Your task to perform on an android device: Search for flights from Helsinki to Tokyo Image 0: 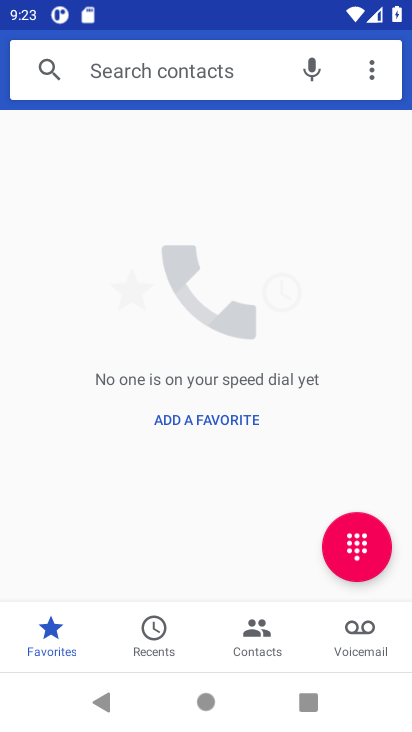
Step 0: press home button
Your task to perform on an android device: Search for flights from Helsinki to Tokyo Image 1: 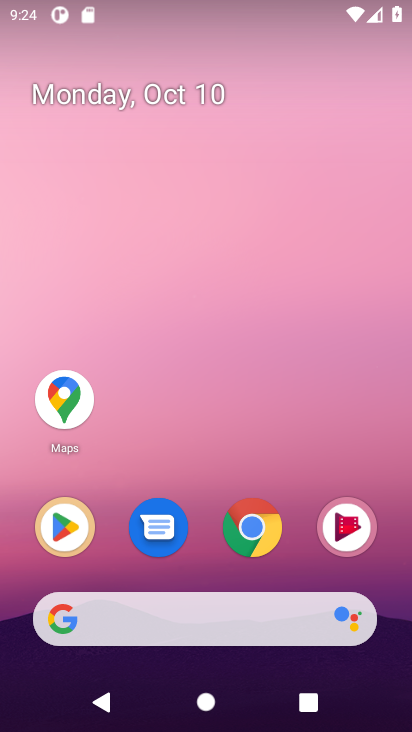
Step 1: click (259, 537)
Your task to perform on an android device: Search for flights from Helsinki to Tokyo Image 2: 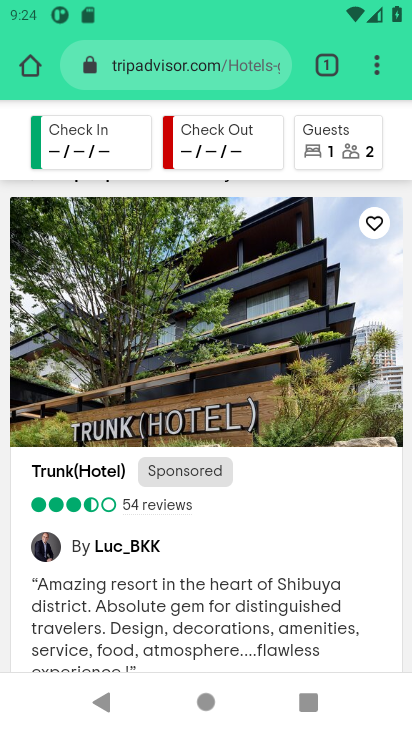
Step 2: click (131, 61)
Your task to perform on an android device: Search for flights from Helsinki to Tokyo Image 3: 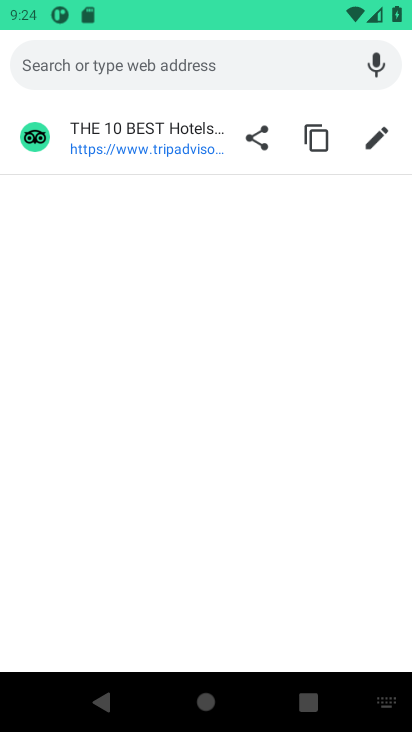
Step 3: type "flights from Helsinki to Tokyo"
Your task to perform on an android device: Search for flights from Helsinki to Tokyo Image 4: 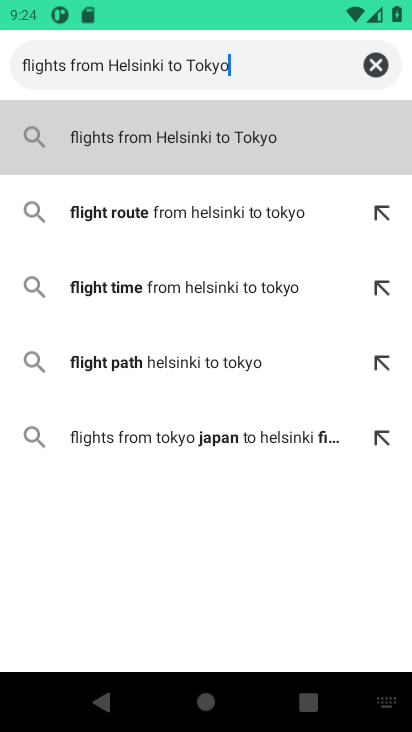
Step 4: type ""
Your task to perform on an android device: Search for flights from Helsinki to Tokyo Image 5: 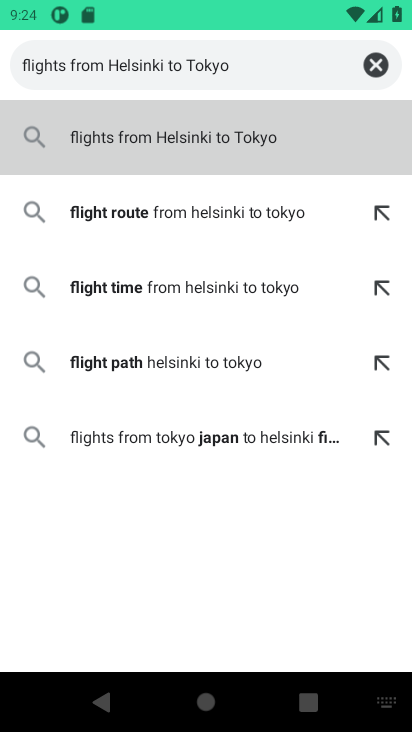
Step 5: press enter
Your task to perform on an android device: Search for flights from Helsinki to Tokyo Image 6: 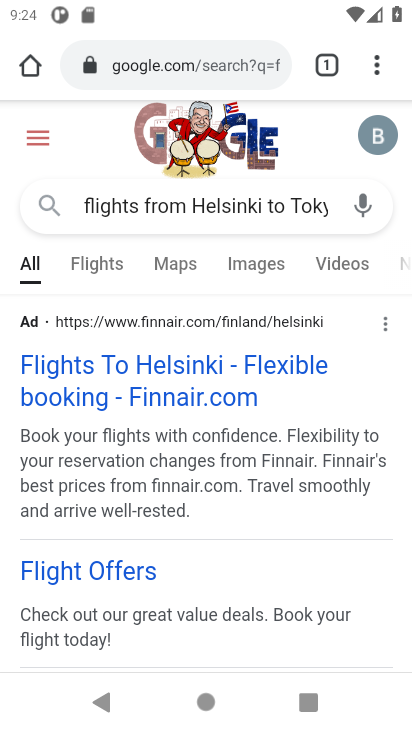
Step 6: drag from (253, 561) to (193, 28)
Your task to perform on an android device: Search for flights from Helsinki to Tokyo Image 7: 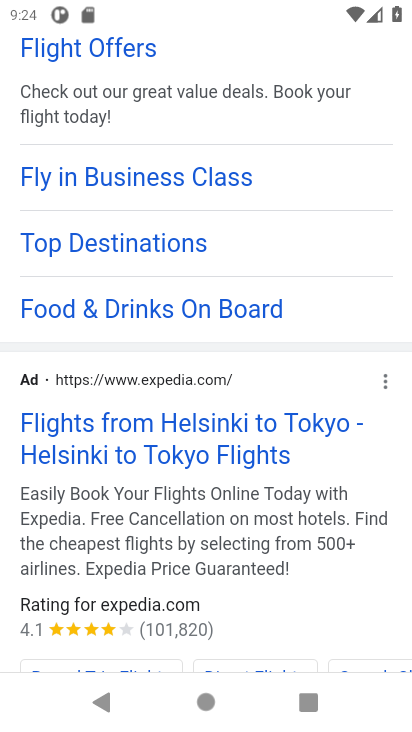
Step 7: click (208, 451)
Your task to perform on an android device: Search for flights from Helsinki to Tokyo Image 8: 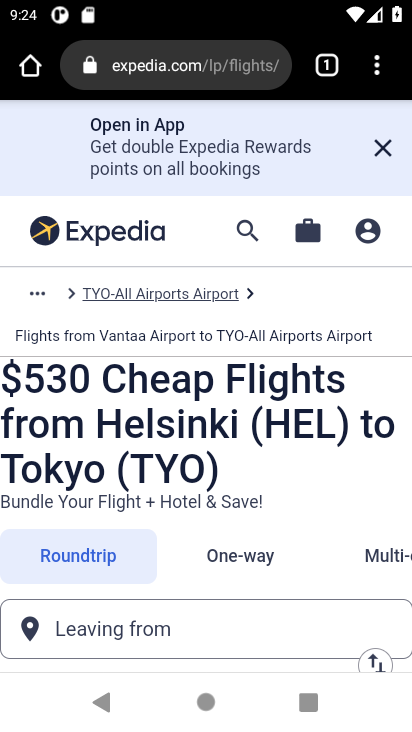
Step 8: drag from (240, 561) to (186, 173)
Your task to perform on an android device: Search for flights from Helsinki to Tokyo Image 9: 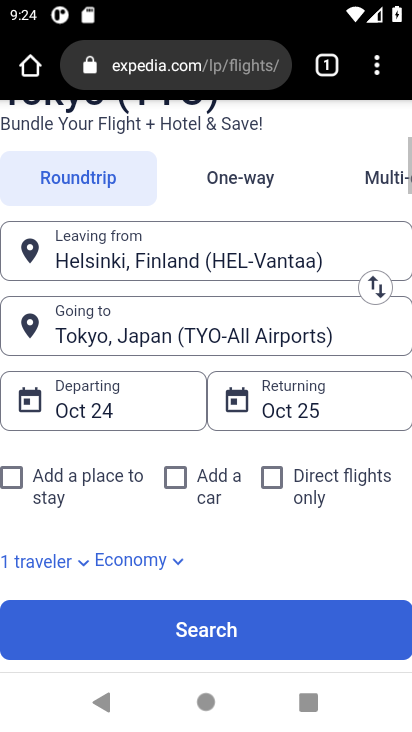
Step 9: drag from (282, 576) to (232, 161)
Your task to perform on an android device: Search for flights from Helsinki to Tokyo Image 10: 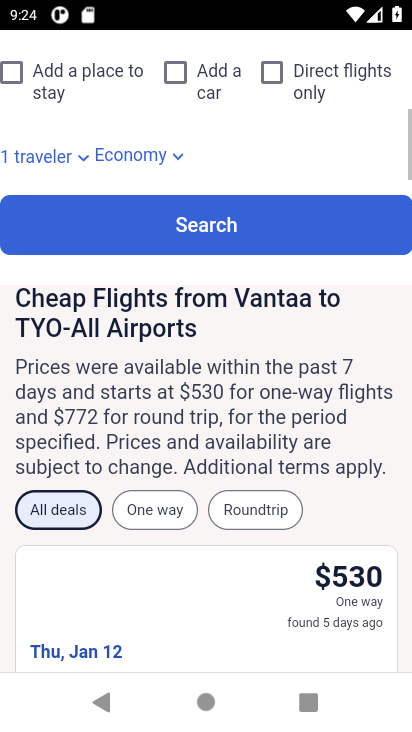
Step 10: drag from (259, 608) to (212, 23)
Your task to perform on an android device: Search for flights from Helsinki to Tokyo Image 11: 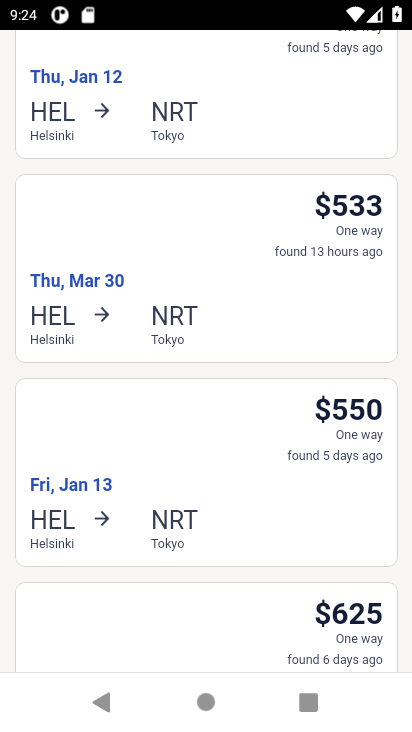
Step 11: drag from (238, 623) to (176, 204)
Your task to perform on an android device: Search for flights from Helsinki to Tokyo Image 12: 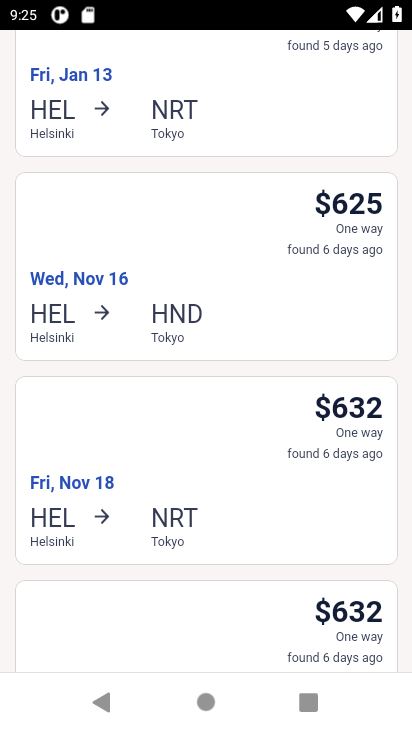
Step 12: drag from (251, 615) to (213, 206)
Your task to perform on an android device: Search for flights from Helsinki to Tokyo Image 13: 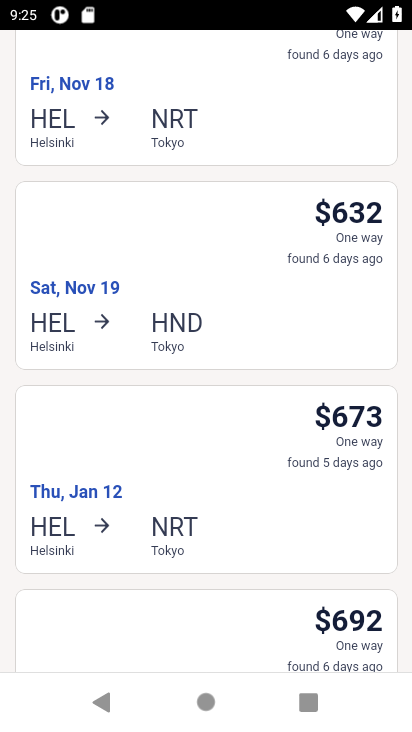
Step 13: drag from (336, 591) to (254, 185)
Your task to perform on an android device: Search for flights from Helsinki to Tokyo Image 14: 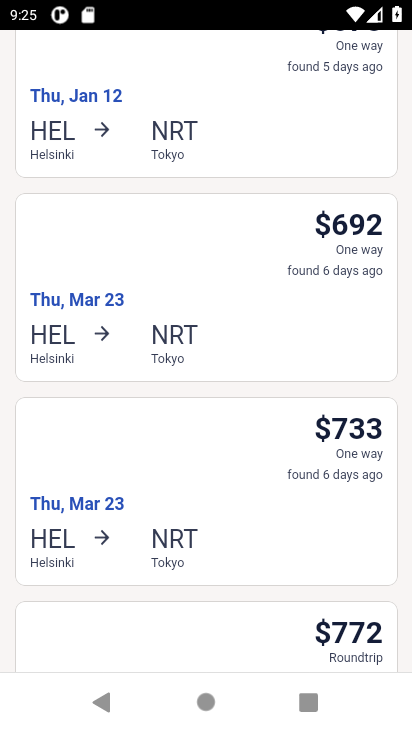
Step 14: drag from (351, 646) to (315, 208)
Your task to perform on an android device: Search for flights from Helsinki to Tokyo Image 15: 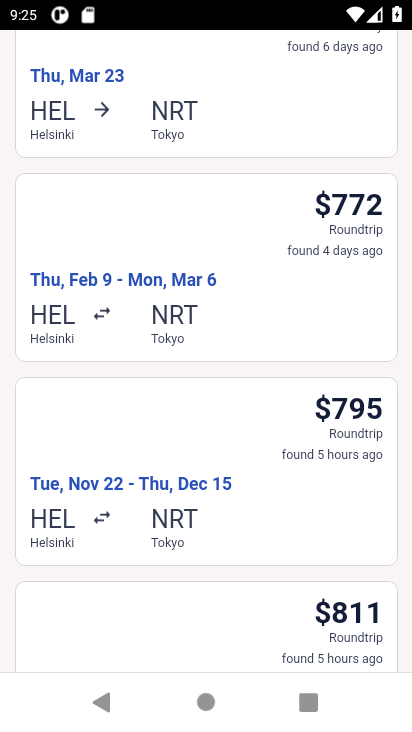
Step 15: drag from (325, 576) to (333, 210)
Your task to perform on an android device: Search for flights from Helsinki to Tokyo Image 16: 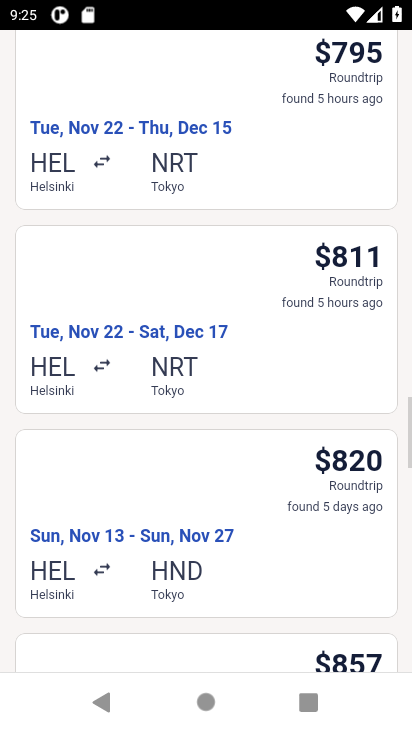
Step 16: drag from (327, 440) to (314, 126)
Your task to perform on an android device: Search for flights from Helsinki to Tokyo Image 17: 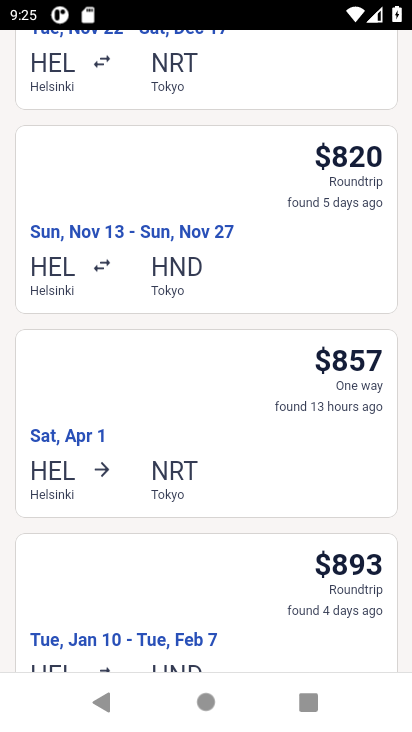
Step 17: drag from (311, 458) to (270, 93)
Your task to perform on an android device: Search for flights from Helsinki to Tokyo Image 18: 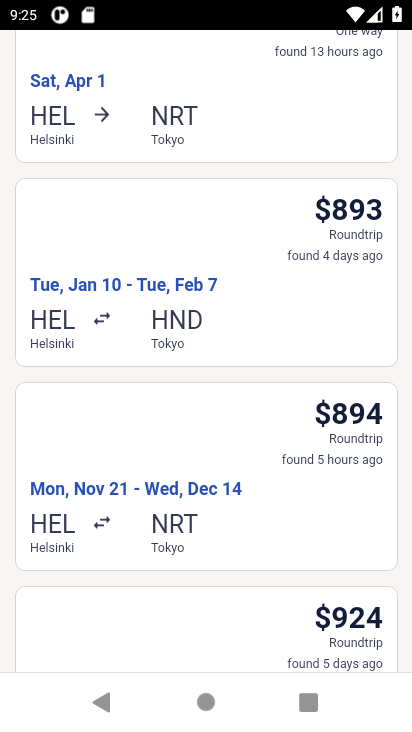
Step 18: drag from (260, 516) to (247, 166)
Your task to perform on an android device: Search for flights from Helsinki to Tokyo Image 19: 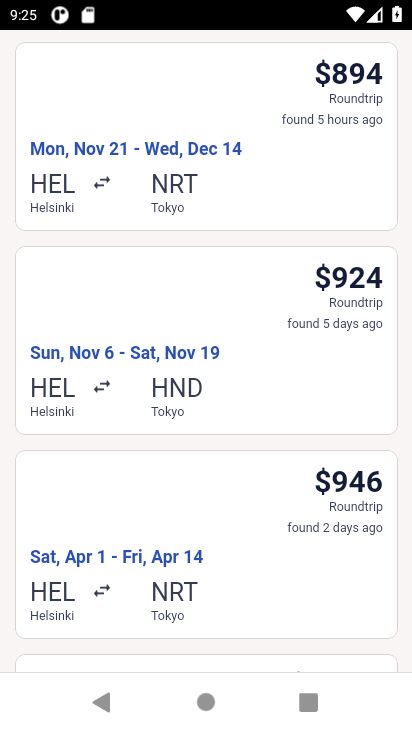
Step 19: drag from (244, 530) to (271, 233)
Your task to perform on an android device: Search for flights from Helsinki to Tokyo Image 20: 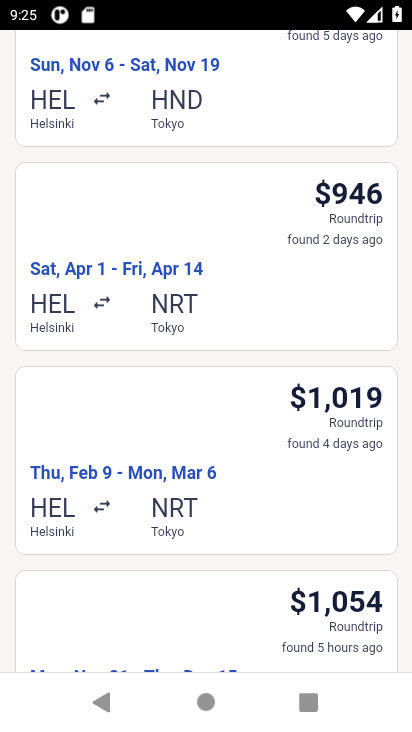
Step 20: drag from (292, 498) to (305, 184)
Your task to perform on an android device: Search for flights from Helsinki to Tokyo Image 21: 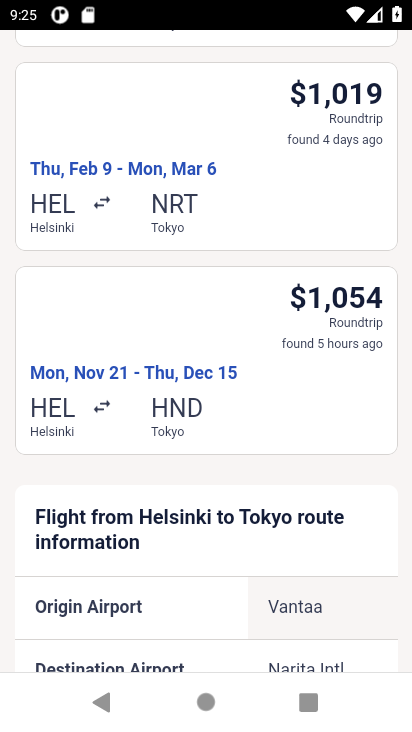
Step 21: drag from (258, 560) to (244, 235)
Your task to perform on an android device: Search for flights from Helsinki to Tokyo Image 22: 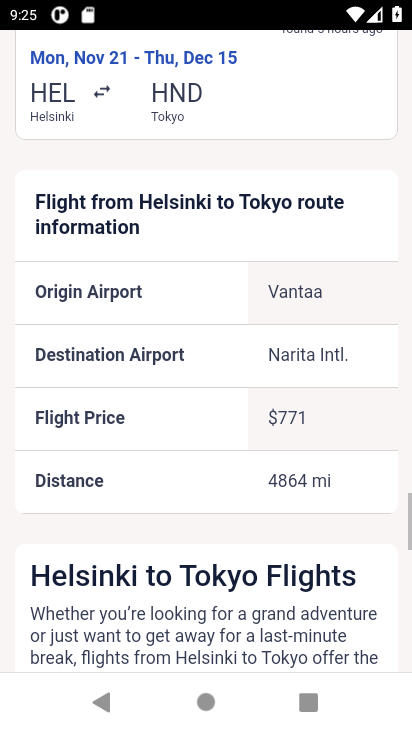
Step 22: drag from (284, 519) to (247, 241)
Your task to perform on an android device: Search for flights from Helsinki to Tokyo Image 23: 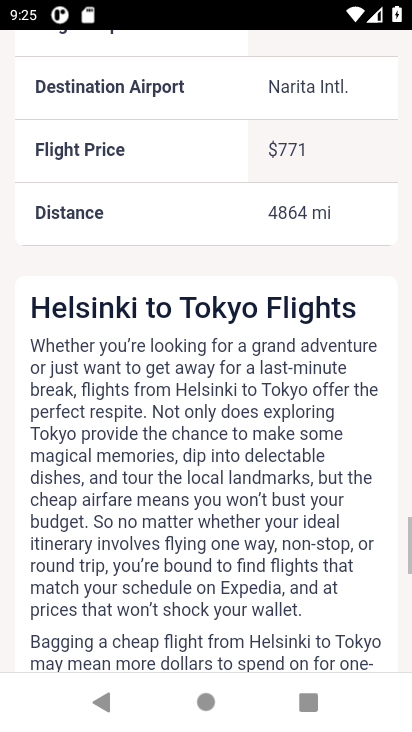
Step 23: drag from (233, 496) to (196, 235)
Your task to perform on an android device: Search for flights from Helsinki to Tokyo Image 24: 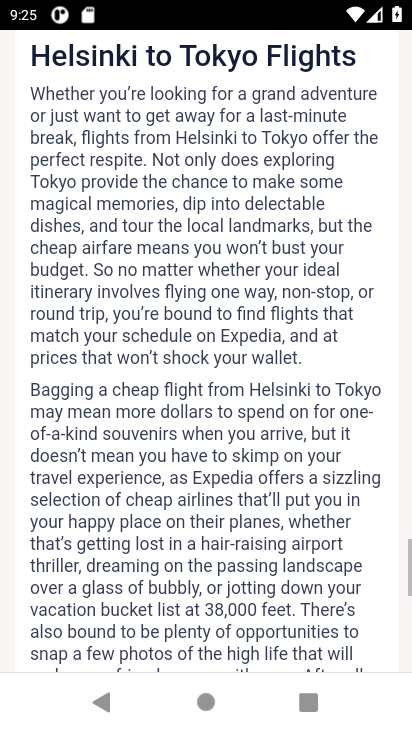
Step 24: drag from (190, 480) to (171, 257)
Your task to perform on an android device: Search for flights from Helsinki to Tokyo Image 25: 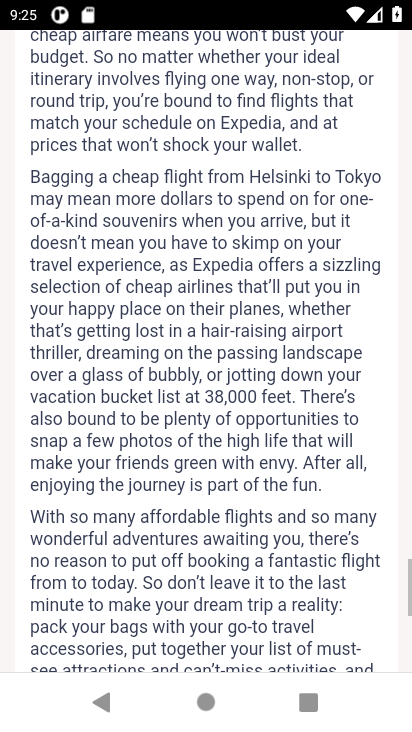
Step 25: drag from (158, 488) to (161, 231)
Your task to perform on an android device: Search for flights from Helsinki to Tokyo Image 26: 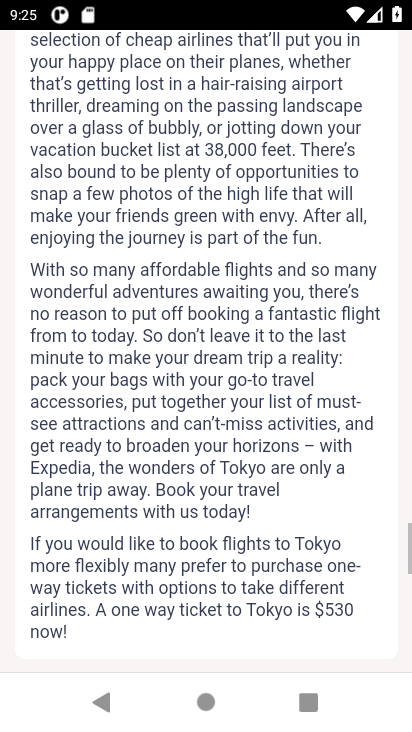
Step 26: drag from (196, 429) to (223, 185)
Your task to perform on an android device: Search for flights from Helsinki to Tokyo Image 27: 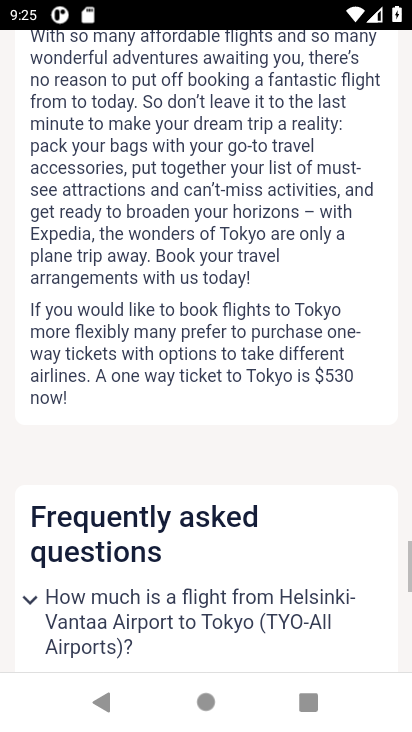
Step 27: drag from (263, 430) to (252, 197)
Your task to perform on an android device: Search for flights from Helsinki to Tokyo Image 28: 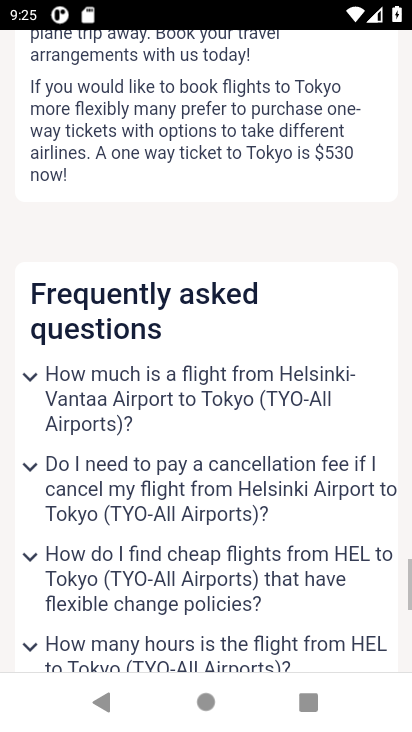
Step 28: drag from (224, 493) to (214, 198)
Your task to perform on an android device: Search for flights from Helsinki to Tokyo Image 29: 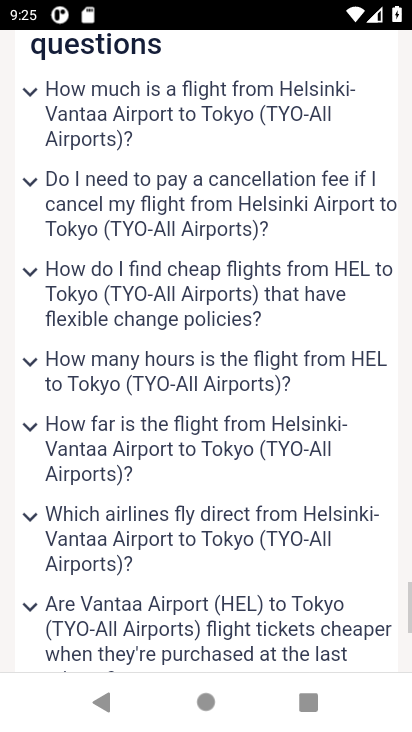
Step 29: drag from (213, 526) to (226, 249)
Your task to perform on an android device: Search for flights from Helsinki to Tokyo Image 30: 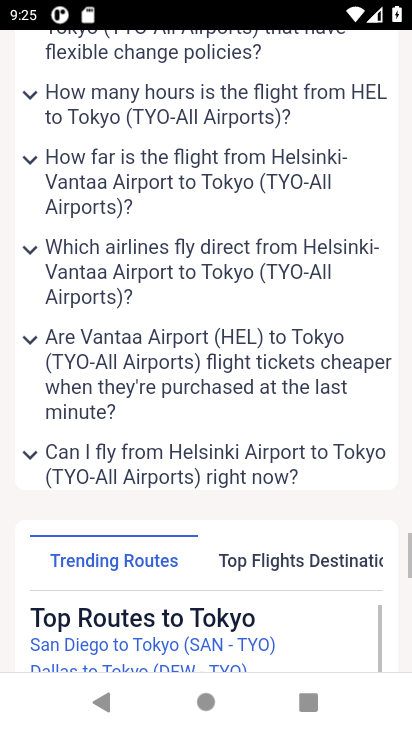
Step 30: drag from (200, 544) to (209, 349)
Your task to perform on an android device: Search for flights from Helsinki to Tokyo Image 31: 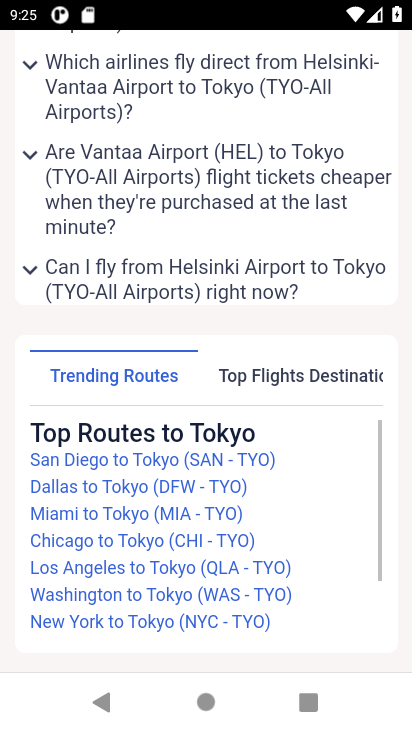
Step 31: click (257, 379)
Your task to perform on an android device: Search for flights from Helsinki to Tokyo Image 32: 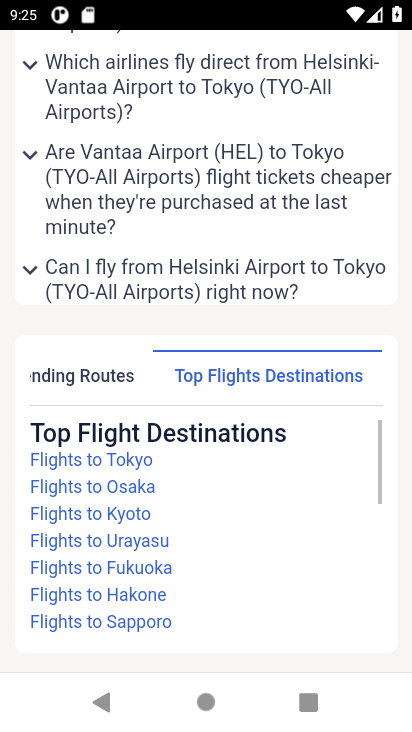
Step 32: drag from (247, 361) to (221, 83)
Your task to perform on an android device: Search for flights from Helsinki to Tokyo Image 33: 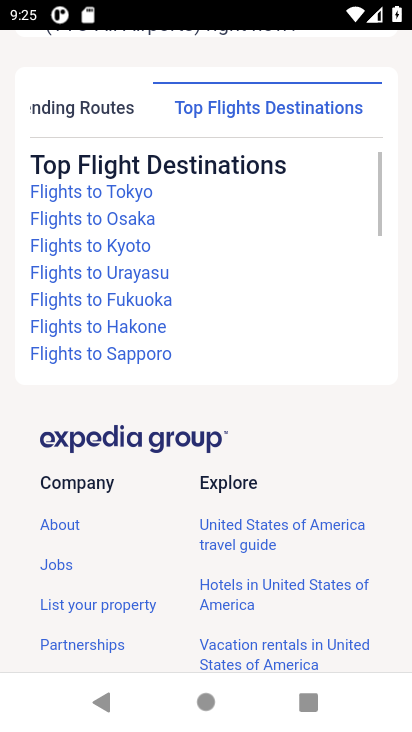
Step 33: drag from (286, 578) to (230, 175)
Your task to perform on an android device: Search for flights from Helsinki to Tokyo Image 34: 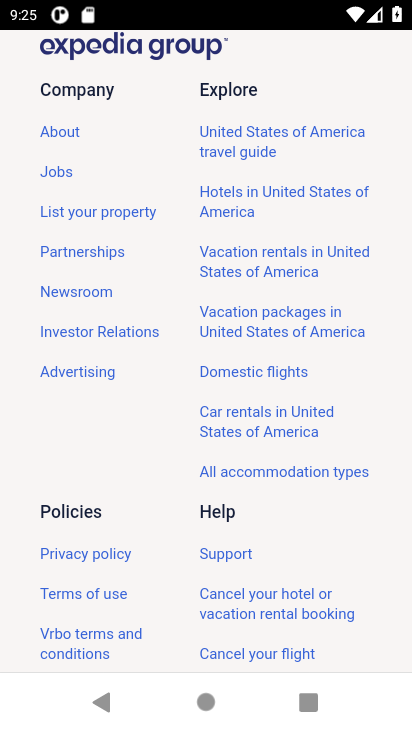
Step 34: drag from (237, 580) to (209, 173)
Your task to perform on an android device: Search for flights from Helsinki to Tokyo Image 35: 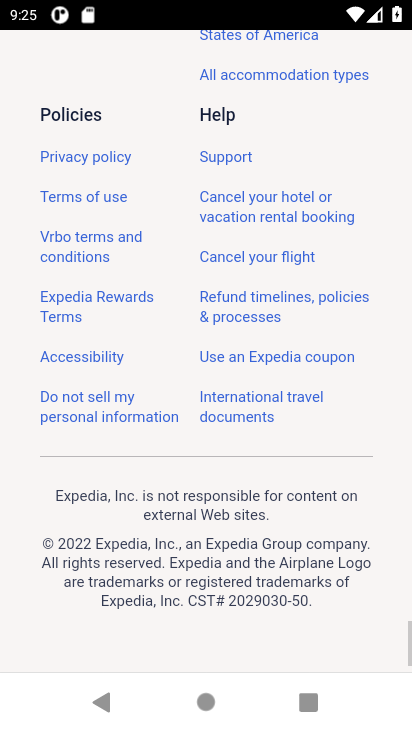
Step 35: drag from (262, 658) to (202, 203)
Your task to perform on an android device: Search for flights from Helsinki to Tokyo Image 36: 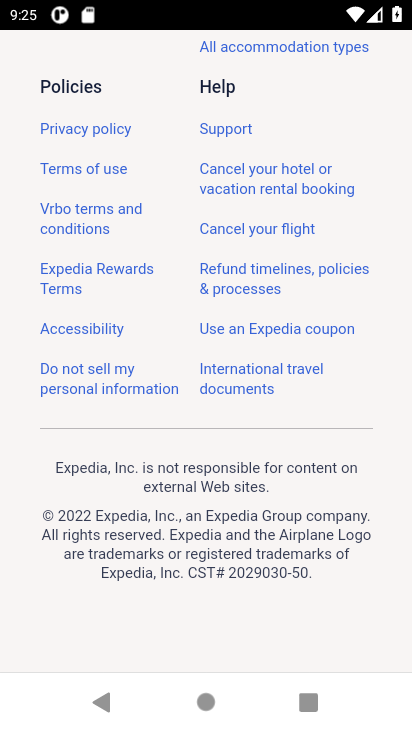
Step 36: press back button
Your task to perform on an android device: Search for flights from Helsinki to Tokyo Image 37: 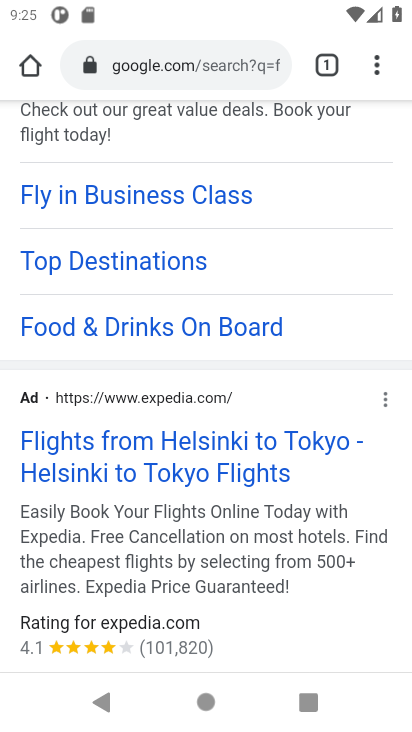
Step 37: drag from (300, 604) to (286, 113)
Your task to perform on an android device: Search for flights from Helsinki to Tokyo Image 38: 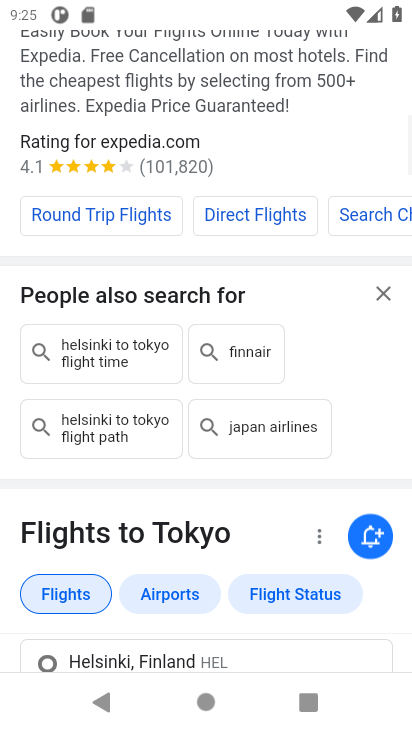
Step 38: drag from (338, 581) to (322, 133)
Your task to perform on an android device: Search for flights from Helsinki to Tokyo Image 39: 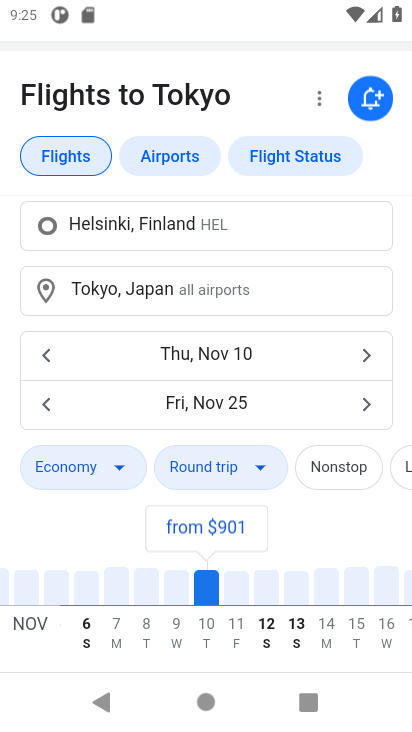
Step 39: drag from (336, 539) to (314, 132)
Your task to perform on an android device: Search for flights from Helsinki to Tokyo Image 40: 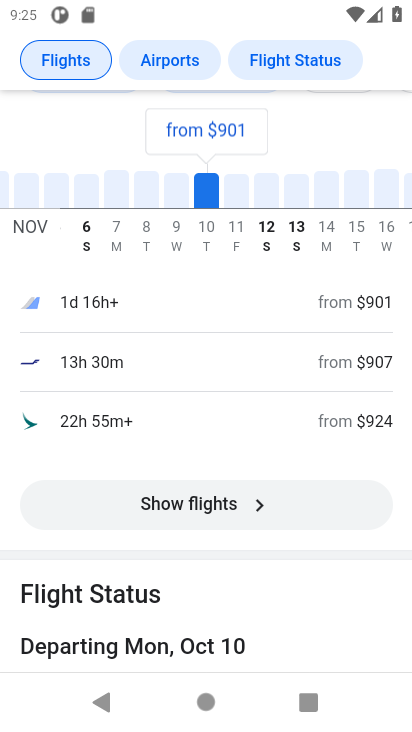
Step 40: click (212, 501)
Your task to perform on an android device: Search for flights from Helsinki to Tokyo Image 41: 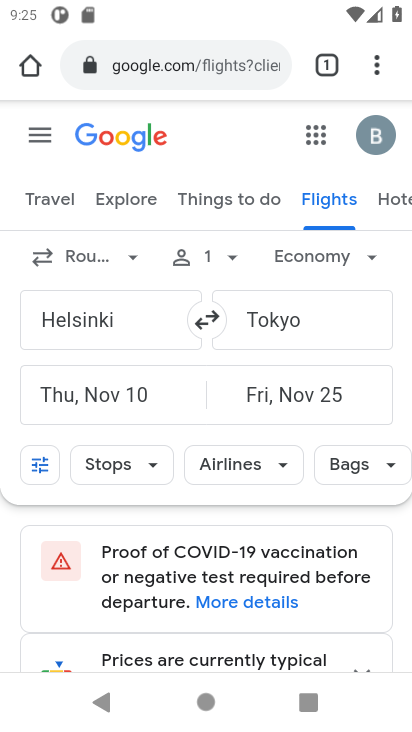
Step 41: drag from (283, 594) to (249, 132)
Your task to perform on an android device: Search for flights from Helsinki to Tokyo Image 42: 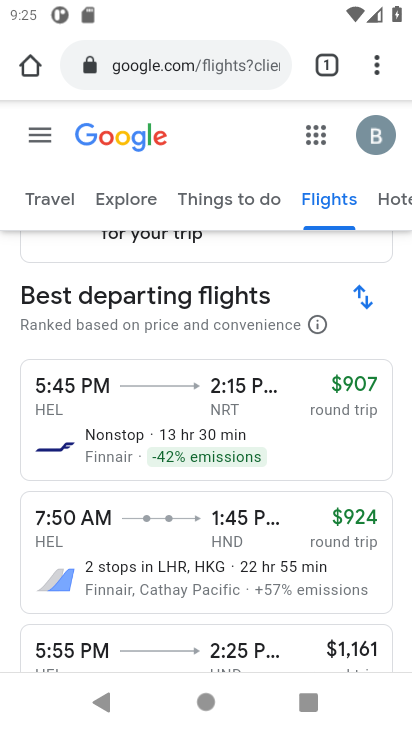
Step 42: drag from (272, 566) to (250, 309)
Your task to perform on an android device: Search for flights from Helsinki to Tokyo Image 43: 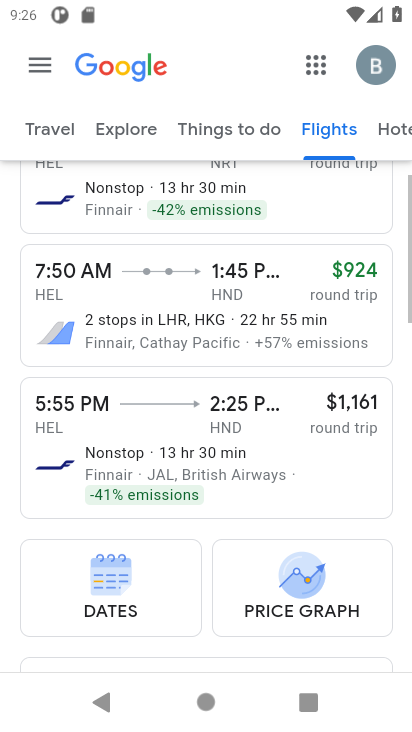
Step 43: drag from (217, 574) to (226, 316)
Your task to perform on an android device: Search for flights from Helsinki to Tokyo Image 44: 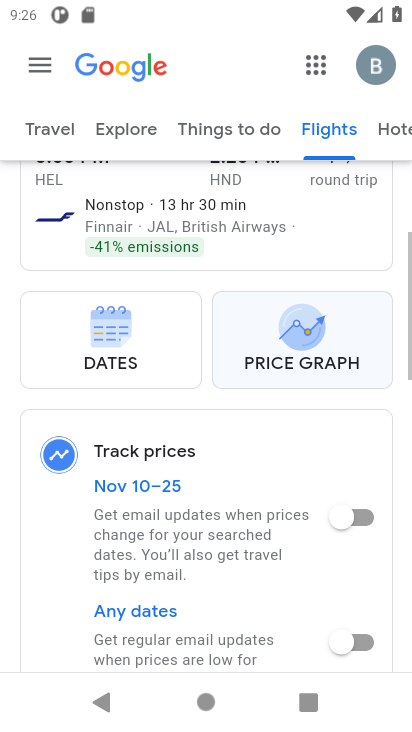
Step 44: drag from (179, 590) to (188, 256)
Your task to perform on an android device: Search for flights from Helsinki to Tokyo Image 45: 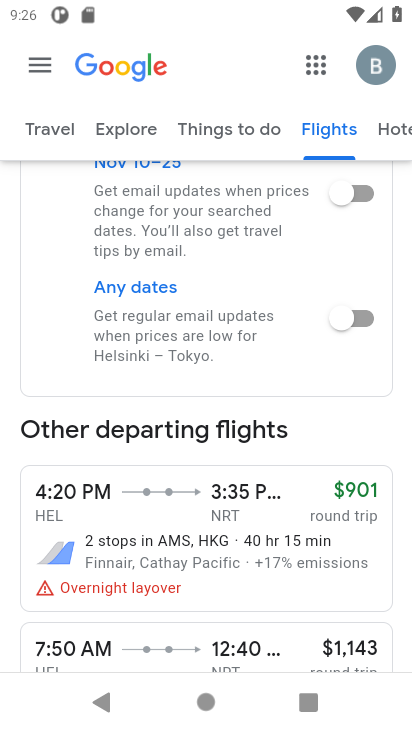
Step 45: drag from (204, 178) to (208, 341)
Your task to perform on an android device: Search for flights from Helsinki to Tokyo Image 46: 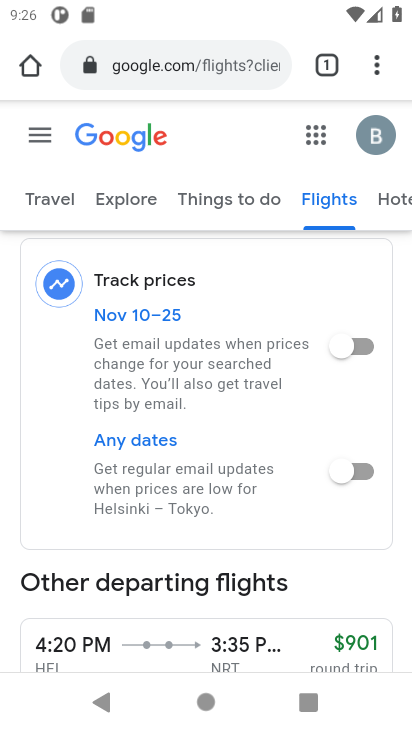
Step 46: click (338, 350)
Your task to perform on an android device: Search for flights from Helsinki to Tokyo Image 47: 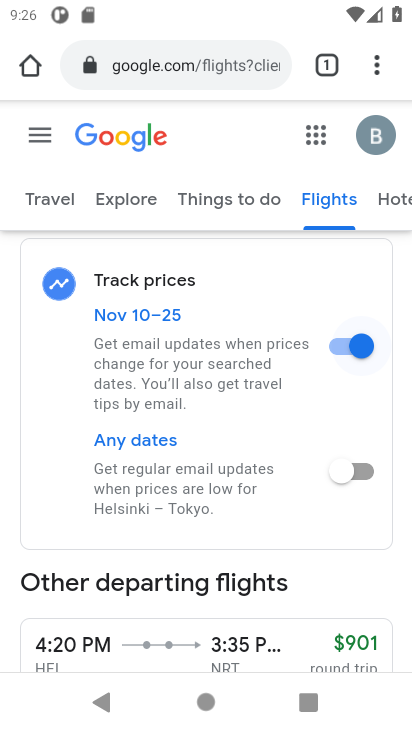
Step 47: click (362, 467)
Your task to perform on an android device: Search for flights from Helsinki to Tokyo Image 48: 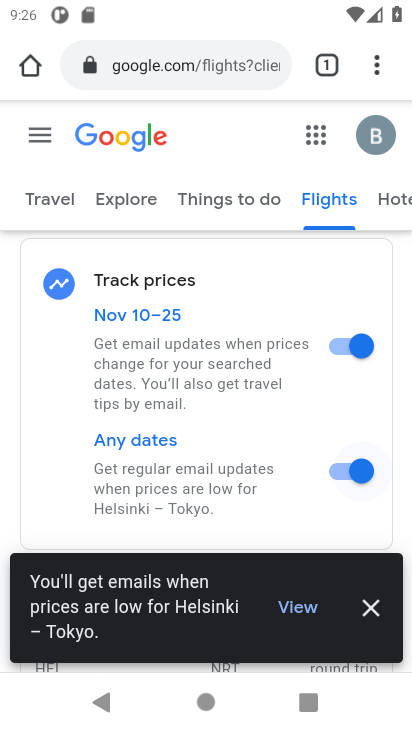
Step 48: drag from (362, 583) to (328, 262)
Your task to perform on an android device: Search for flights from Helsinki to Tokyo Image 49: 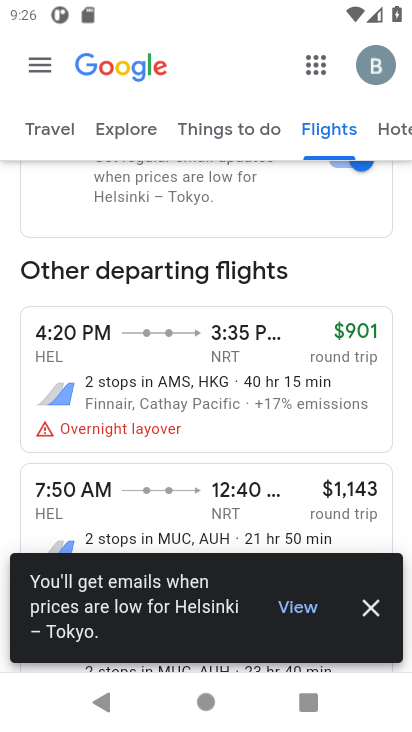
Step 49: click (359, 610)
Your task to perform on an android device: Search for flights from Helsinki to Tokyo Image 50: 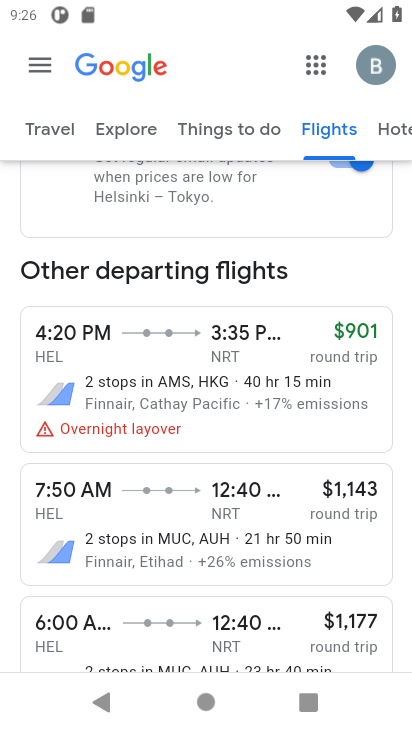
Step 50: drag from (355, 660) to (284, 253)
Your task to perform on an android device: Search for flights from Helsinki to Tokyo Image 51: 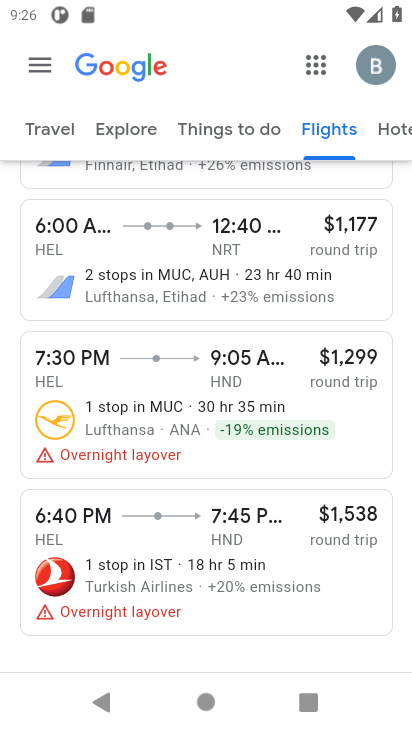
Step 51: drag from (217, 266) to (177, 254)
Your task to perform on an android device: Search for flights from Helsinki to Tokyo Image 52: 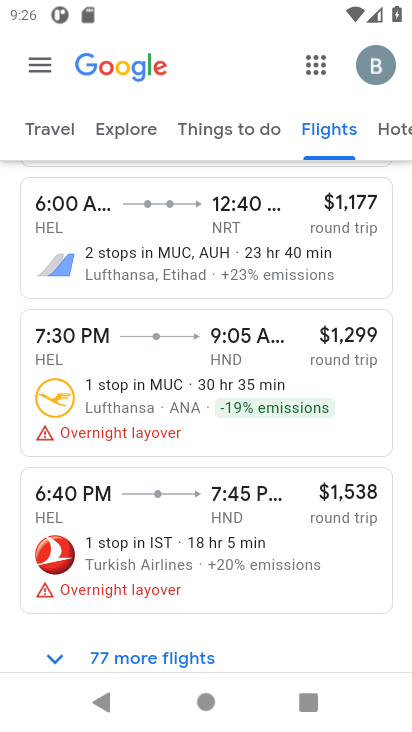
Step 52: drag from (173, 599) to (180, 427)
Your task to perform on an android device: Search for flights from Helsinki to Tokyo Image 53: 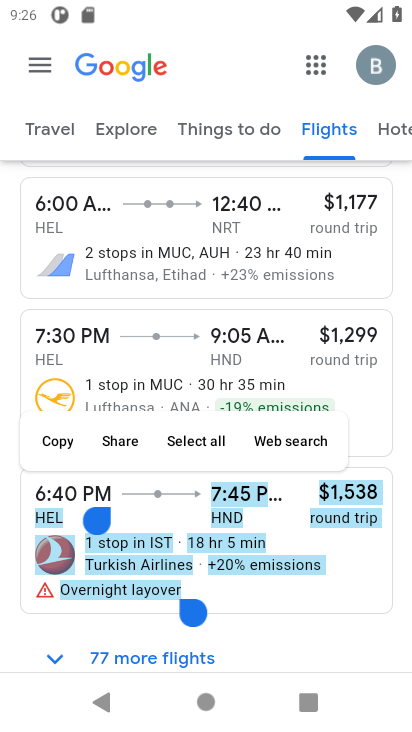
Step 53: click (298, 605)
Your task to perform on an android device: Search for flights from Helsinki to Tokyo Image 54: 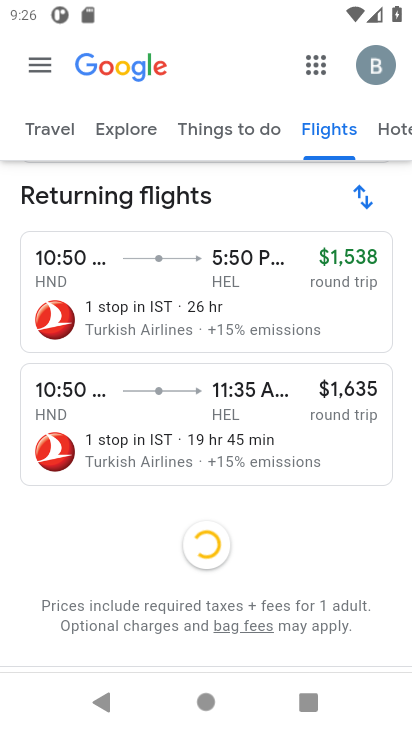
Step 54: task complete